Your task to perform on an android device: Open Chrome and go to the settings page Image 0: 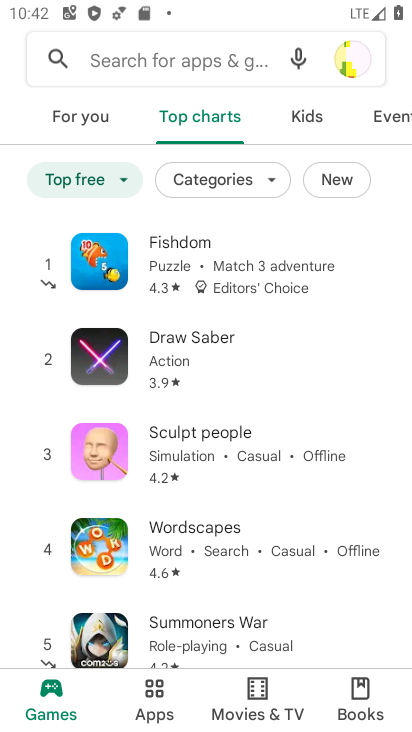
Step 0: press home button
Your task to perform on an android device: Open Chrome and go to the settings page Image 1: 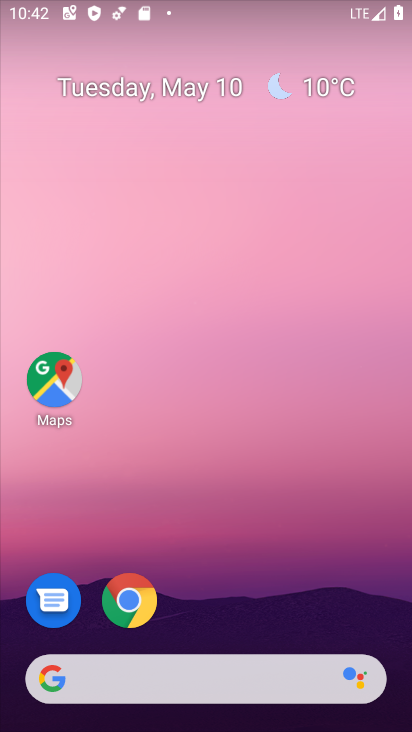
Step 1: click (132, 601)
Your task to perform on an android device: Open Chrome and go to the settings page Image 2: 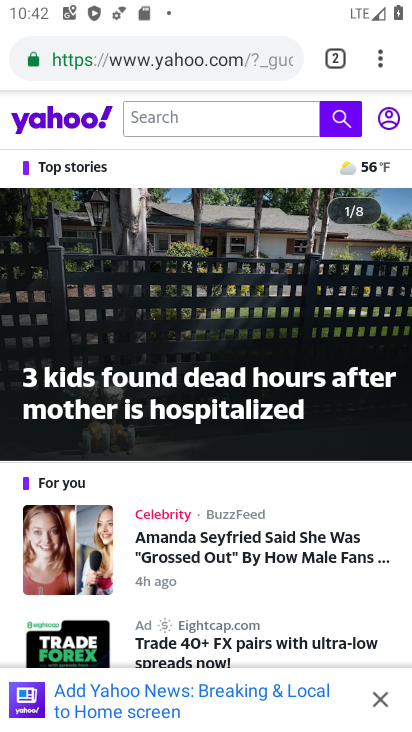
Step 2: click (381, 46)
Your task to perform on an android device: Open Chrome and go to the settings page Image 3: 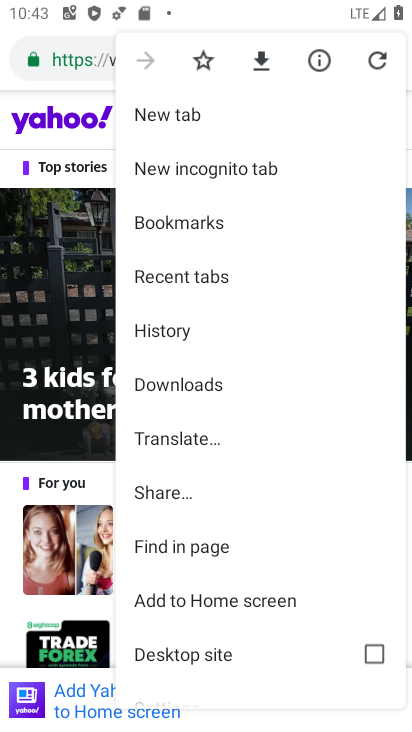
Step 3: drag from (248, 637) to (244, 407)
Your task to perform on an android device: Open Chrome and go to the settings page Image 4: 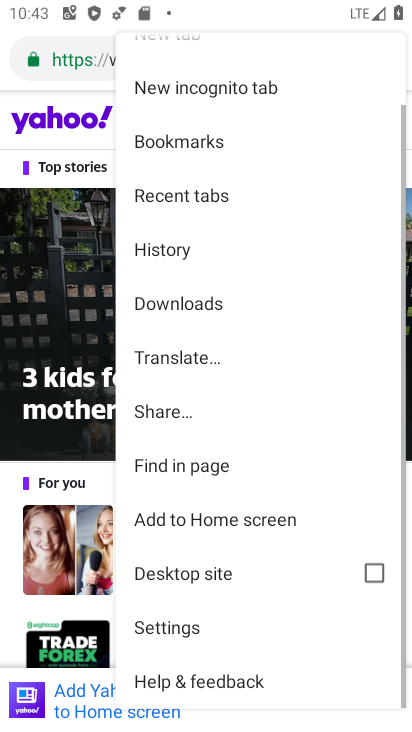
Step 4: click (218, 615)
Your task to perform on an android device: Open Chrome and go to the settings page Image 5: 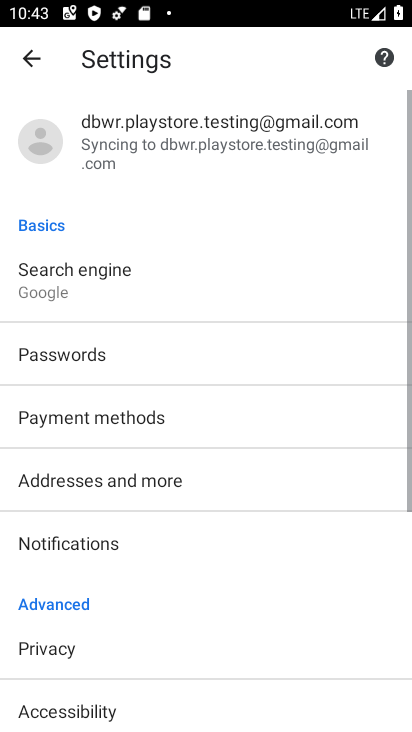
Step 5: task complete